Your task to perform on an android device: turn on data saver in the chrome app Image 0: 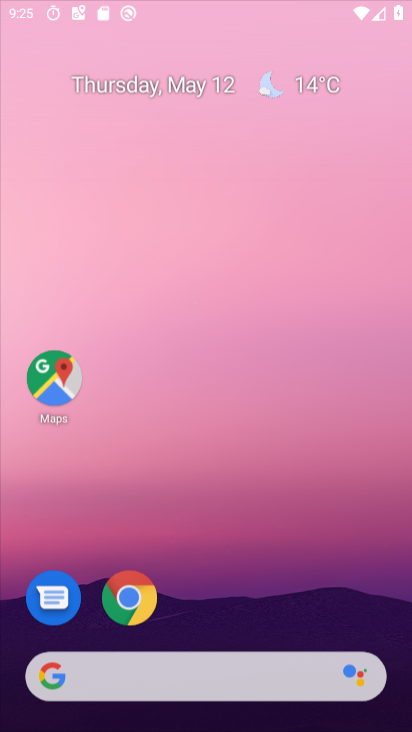
Step 0: press back button
Your task to perform on an android device: turn on data saver in the chrome app Image 1: 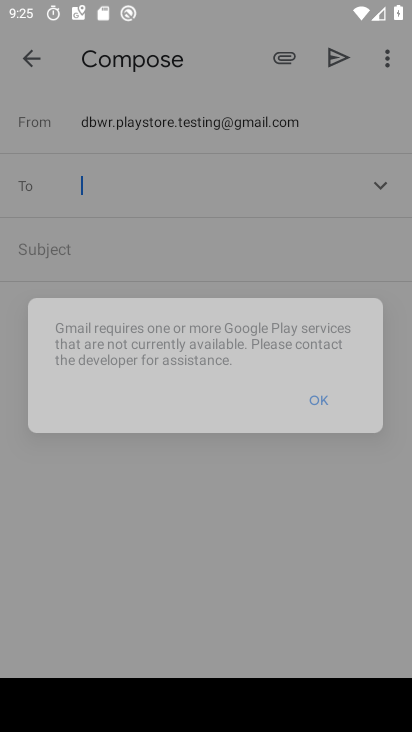
Step 1: drag from (178, 294) to (112, 10)
Your task to perform on an android device: turn on data saver in the chrome app Image 2: 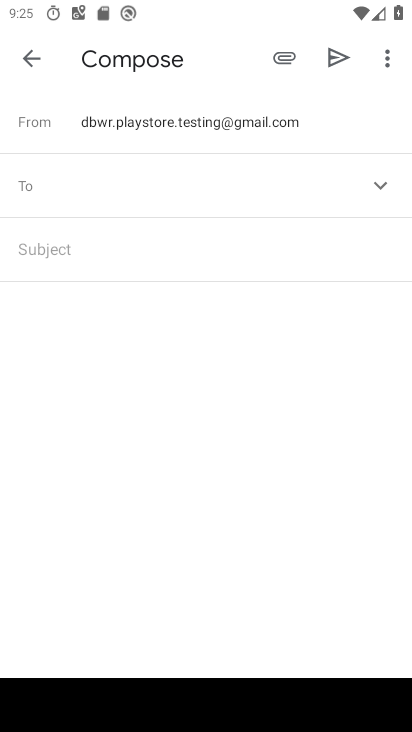
Step 2: drag from (240, 364) to (146, 38)
Your task to perform on an android device: turn on data saver in the chrome app Image 3: 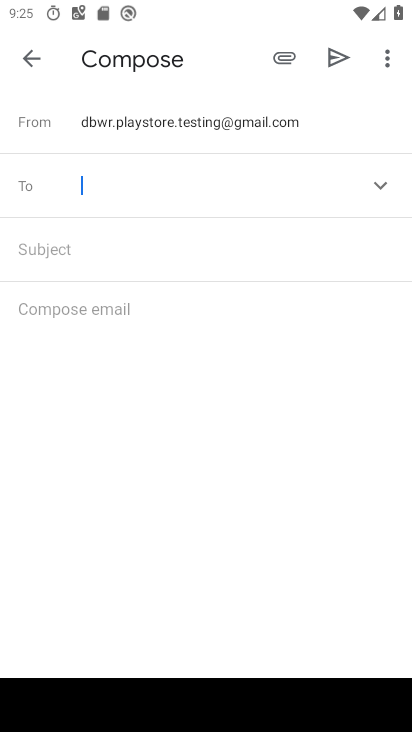
Step 3: click (33, 57)
Your task to perform on an android device: turn on data saver in the chrome app Image 4: 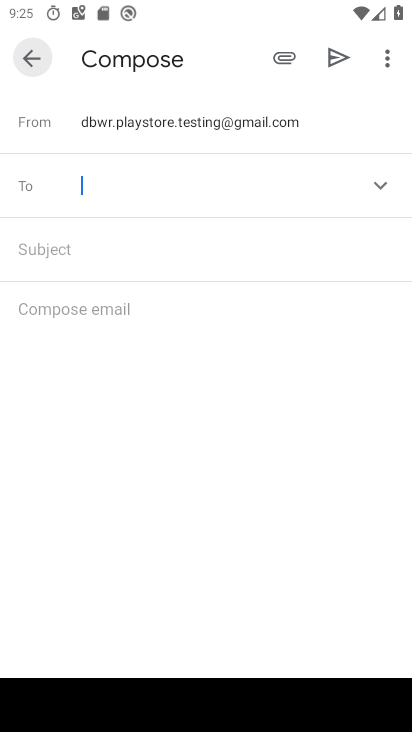
Step 4: click (33, 57)
Your task to perform on an android device: turn on data saver in the chrome app Image 5: 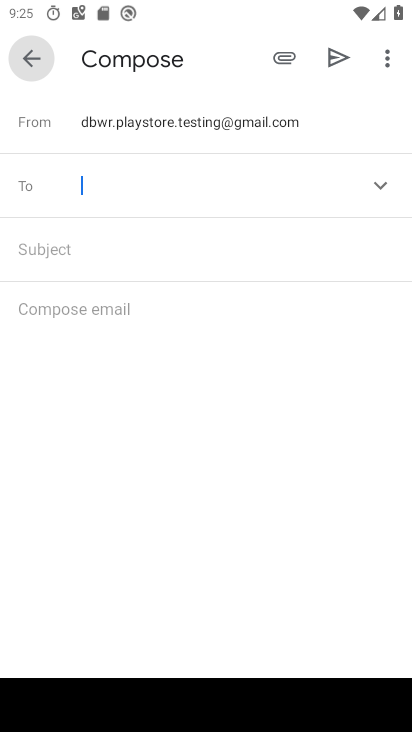
Step 5: click (30, 59)
Your task to perform on an android device: turn on data saver in the chrome app Image 6: 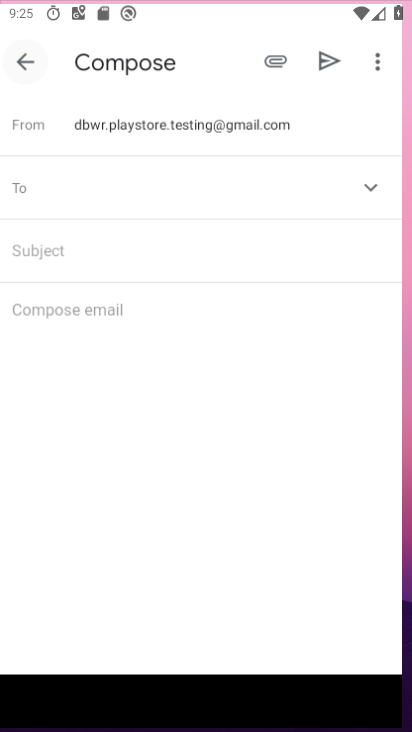
Step 6: click (30, 62)
Your task to perform on an android device: turn on data saver in the chrome app Image 7: 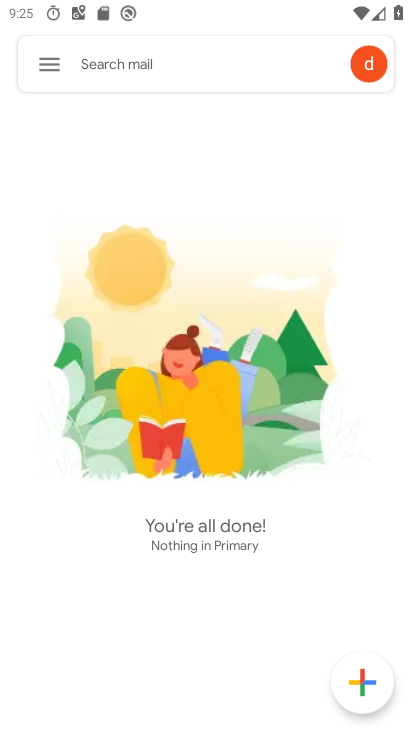
Step 7: click (46, 62)
Your task to perform on an android device: turn on data saver in the chrome app Image 8: 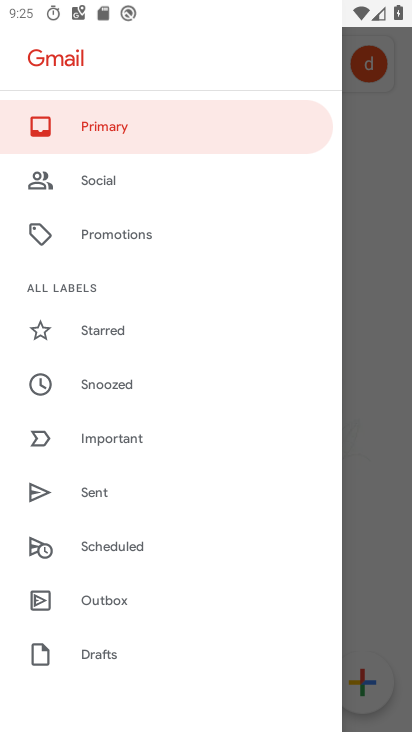
Step 8: click (394, 482)
Your task to perform on an android device: turn on data saver in the chrome app Image 9: 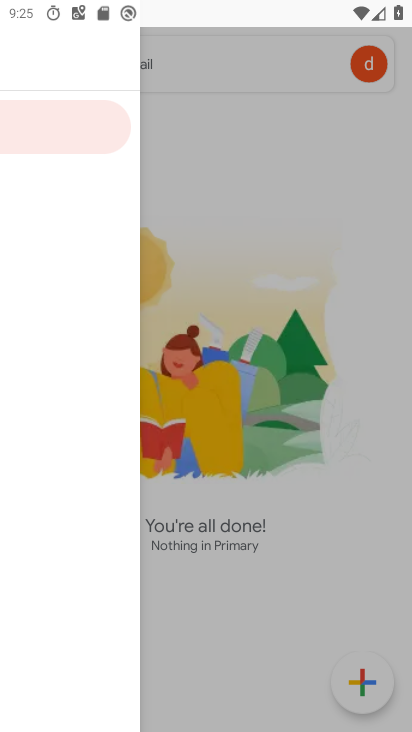
Step 9: click (367, 395)
Your task to perform on an android device: turn on data saver in the chrome app Image 10: 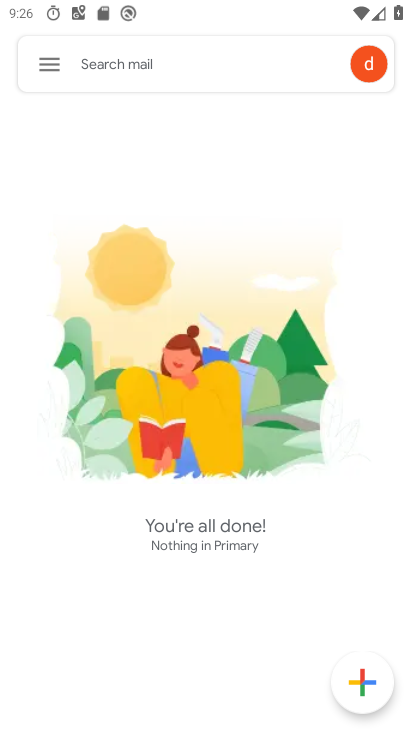
Step 10: press home button
Your task to perform on an android device: turn on data saver in the chrome app Image 11: 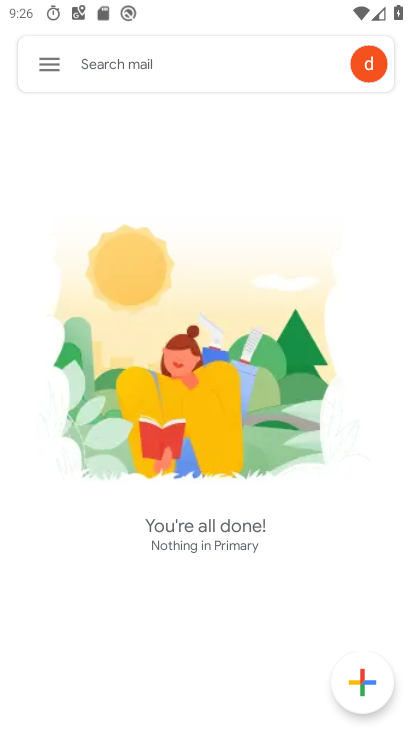
Step 11: press home button
Your task to perform on an android device: turn on data saver in the chrome app Image 12: 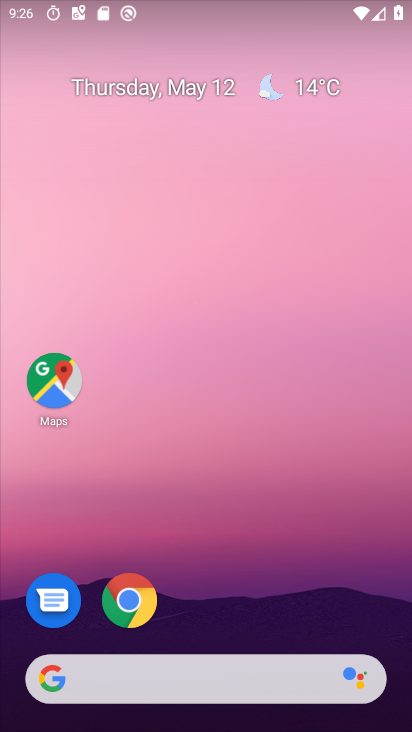
Step 12: drag from (353, 552) to (151, 50)
Your task to perform on an android device: turn on data saver in the chrome app Image 13: 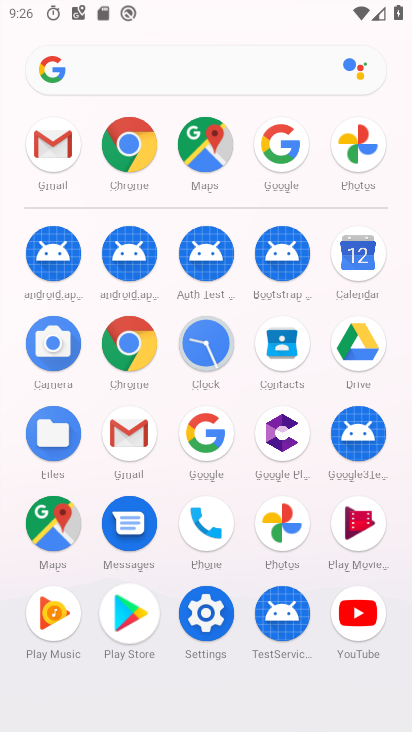
Step 13: click (127, 149)
Your task to perform on an android device: turn on data saver in the chrome app Image 14: 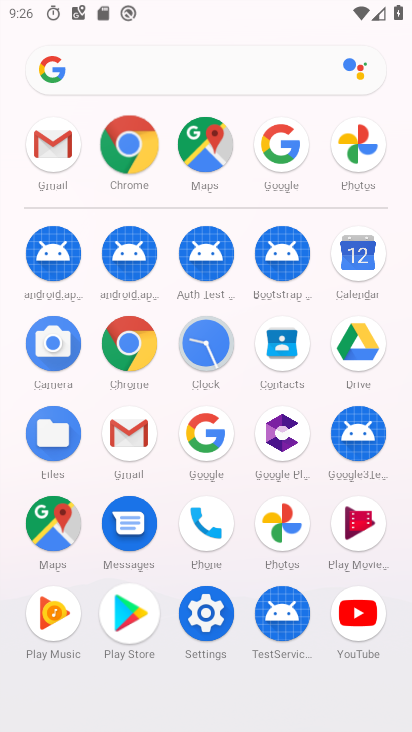
Step 14: click (127, 149)
Your task to perform on an android device: turn on data saver in the chrome app Image 15: 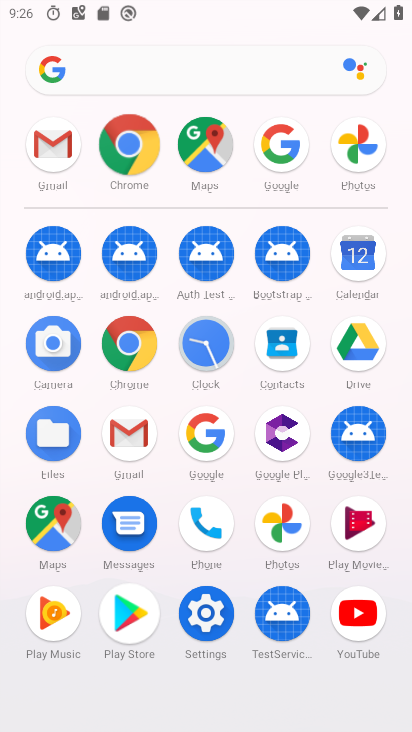
Step 15: click (127, 149)
Your task to perform on an android device: turn on data saver in the chrome app Image 16: 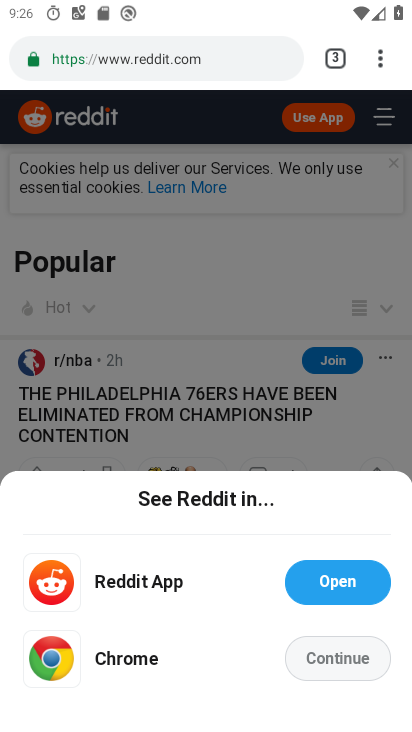
Step 16: drag from (240, 313) to (153, 24)
Your task to perform on an android device: turn on data saver in the chrome app Image 17: 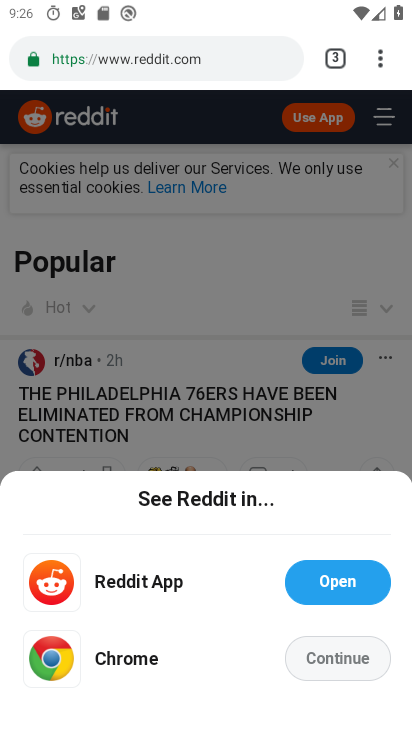
Step 17: drag from (219, 306) to (177, 52)
Your task to perform on an android device: turn on data saver in the chrome app Image 18: 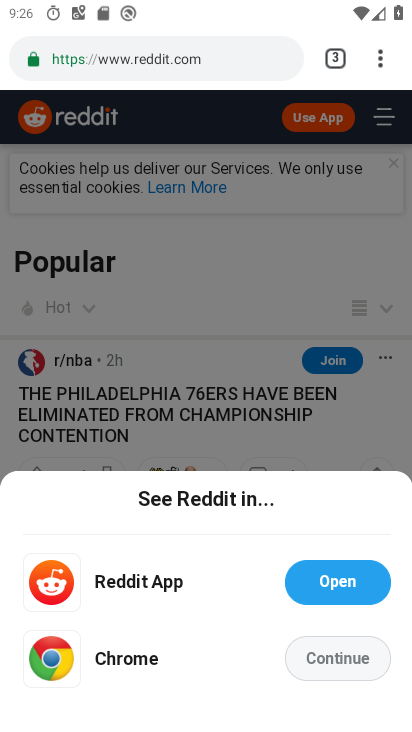
Step 18: drag from (213, 307) to (217, 82)
Your task to perform on an android device: turn on data saver in the chrome app Image 19: 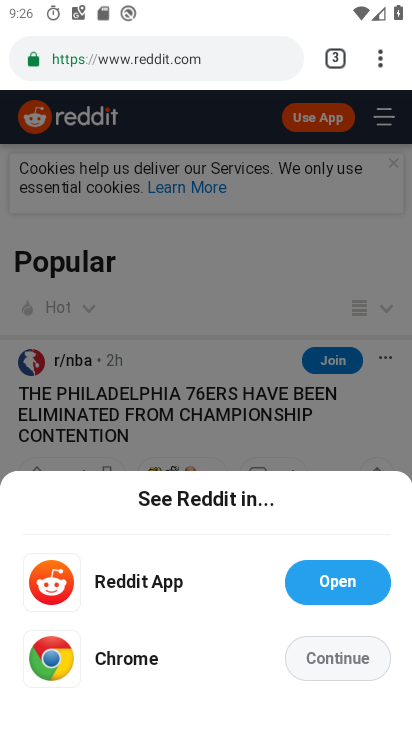
Step 19: drag from (383, 59) to (154, 624)
Your task to perform on an android device: turn on data saver in the chrome app Image 20: 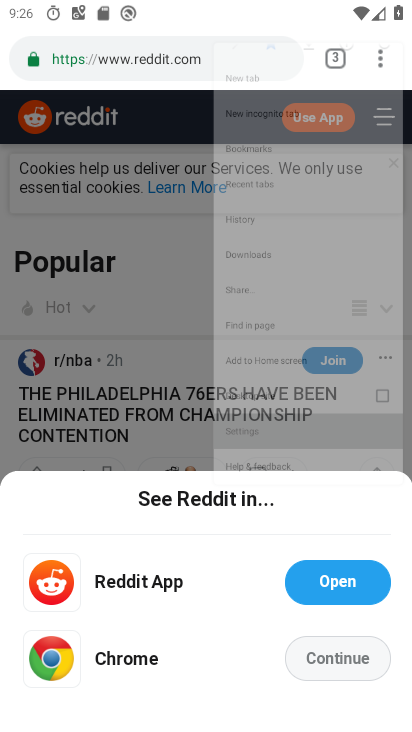
Step 20: click (155, 625)
Your task to perform on an android device: turn on data saver in the chrome app Image 21: 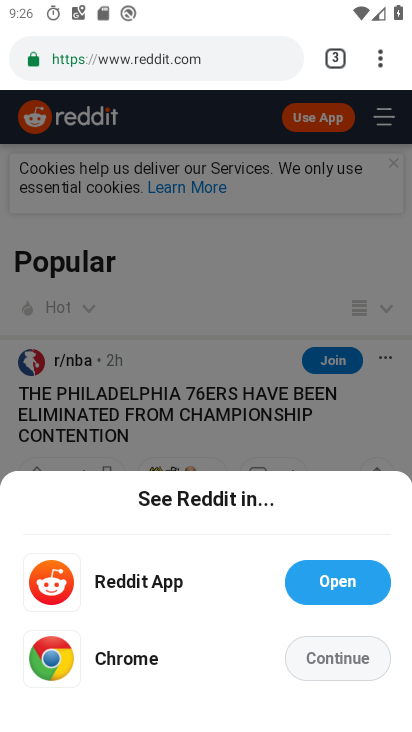
Step 21: click (157, 624)
Your task to perform on an android device: turn on data saver in the chrome app Image 22: 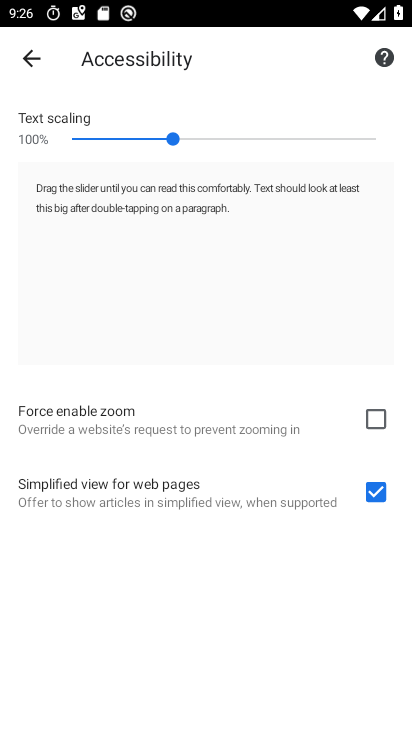
Step 22: click (33, 61)
Your task to perform on an android device: turn on data saver in the chrome app Image 23: 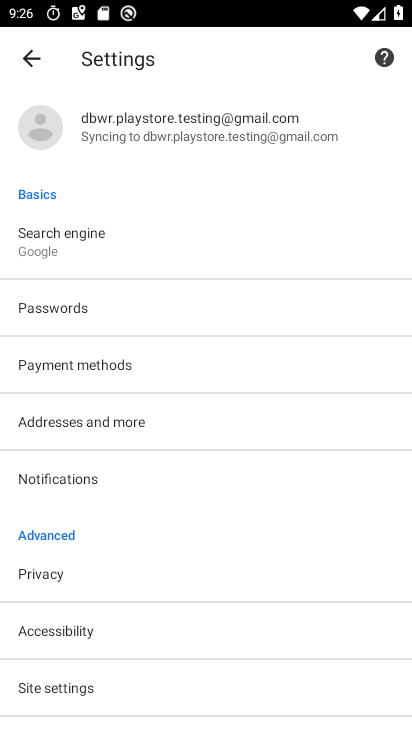
Step 23: drag from (87, 630) to (9, 33)
Your task to perform on an android device: turn on data saver in the chrome app Image 24: 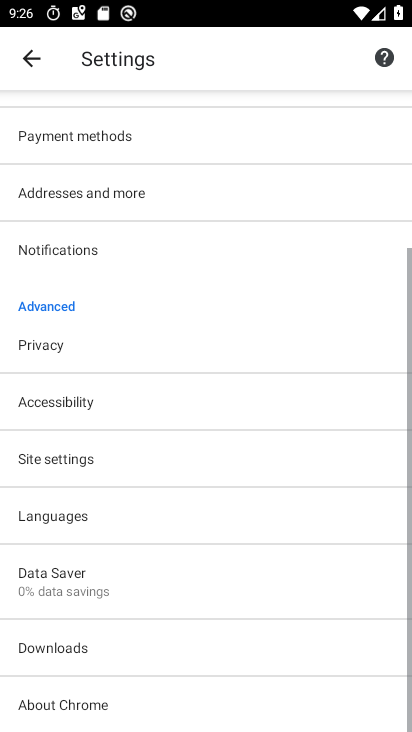
Step 24: drag from (155, 482) to (158, 98)
Your task to perform on an android device: turn on data saver in the chrome app Image 25: 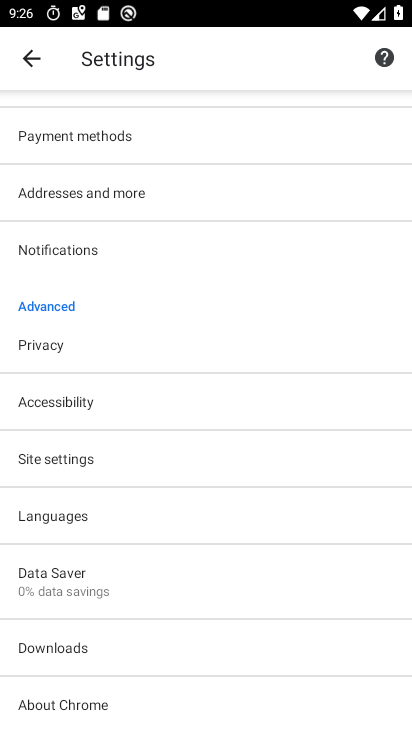
Step 25: drag from (54, 626) to (33, 157)
Your task to perform on an android device: turn on data saver in the chrome app Image 26: 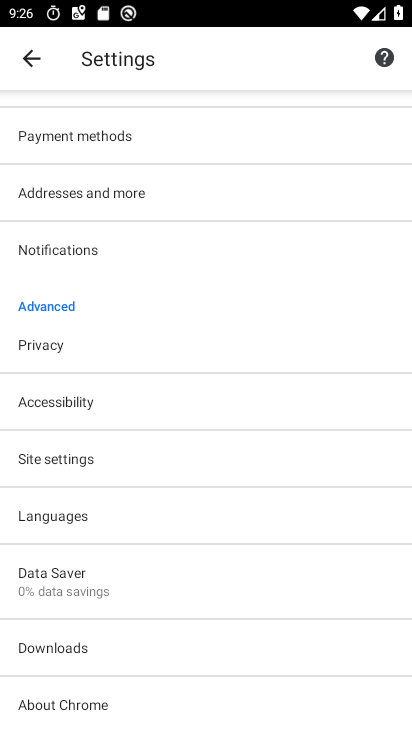
Step 26: click (58, 587)
Your task to perform on an android device: turn on data saver in the chrome app Image 27: 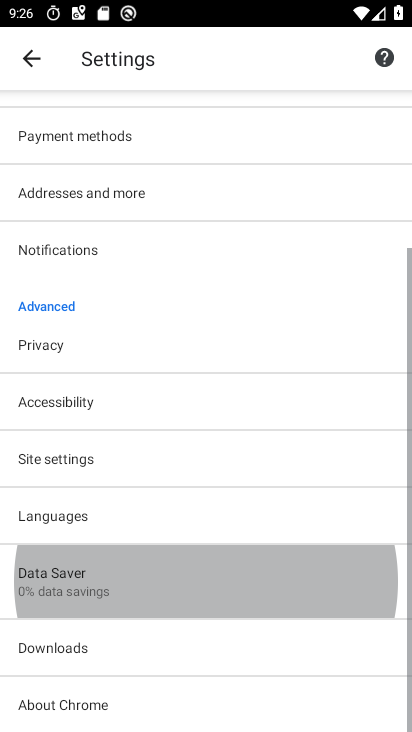
Step 27: click (58, 587)
Your task to perform on an android device: turn on data saver in the chrome app Image 28: 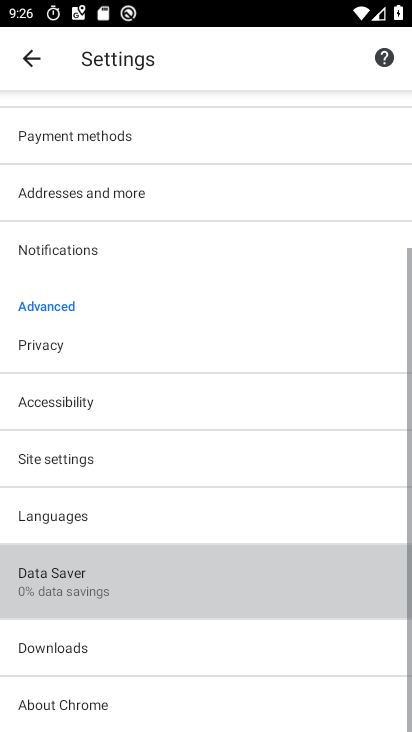
Step 28: click (58, 587)
Your task to perform on an android device: turn on data saver in the chrome app Image 29: 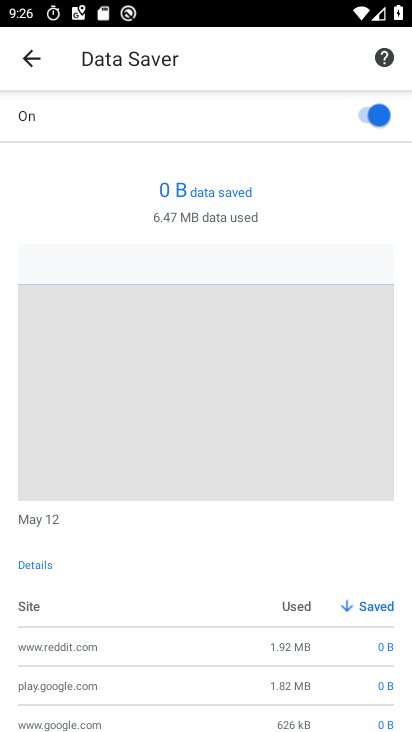
Step 29: task complete